Your task to perform on an android device: Open Chrome and go to settings Image 0: 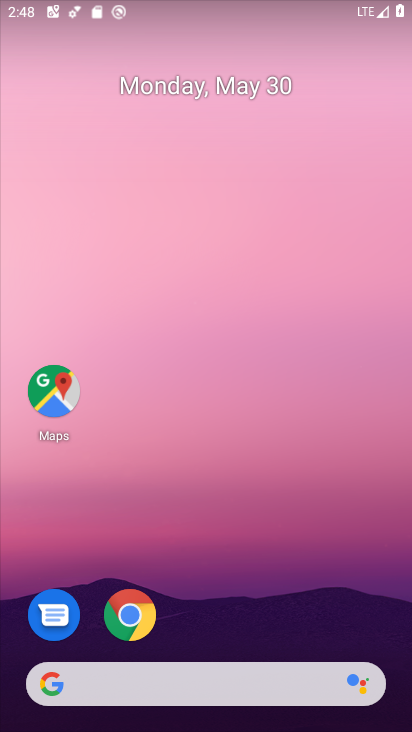
Step 0: click (131, 615)
Your task to perform on an android device: Open Chrome and go to settings Image 1: 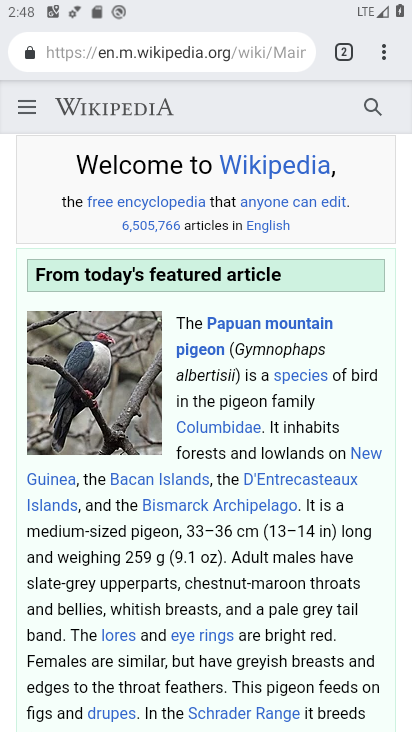
Step 1: click (379, 52)
Your task to perform on an android device: Open Chrome and go to settings Image 2: 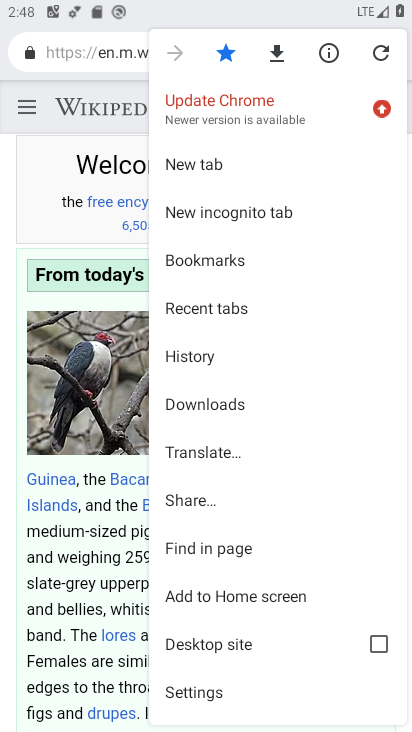
Step 2: click (226, 690)
Your task to perform on an android device: Open Chrome and go to settings Image 3: 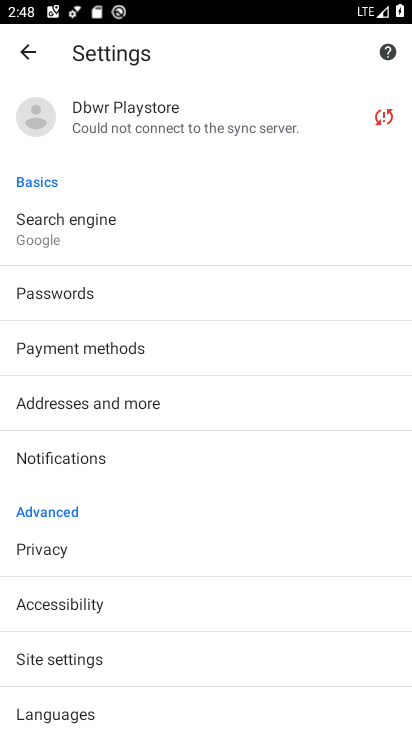
Step 3: task complete